Your task to perform on an android device: Open the Play Movies app and select the watchlist tab. Image 0: 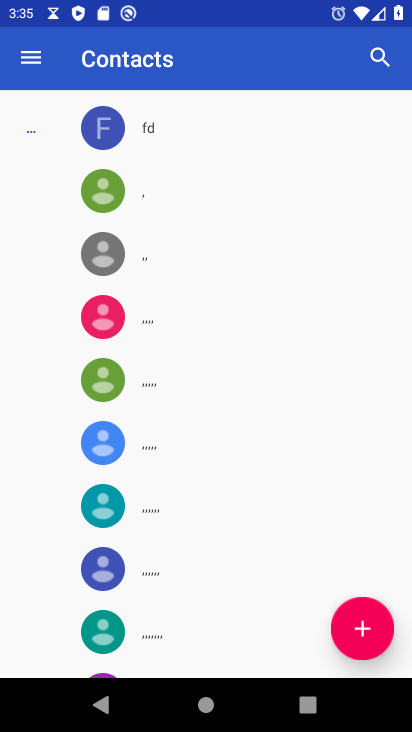
Step 0: press back button
Your task to perform on an android device: Open the Play Movies app and select the watchlist tab. Image 1: 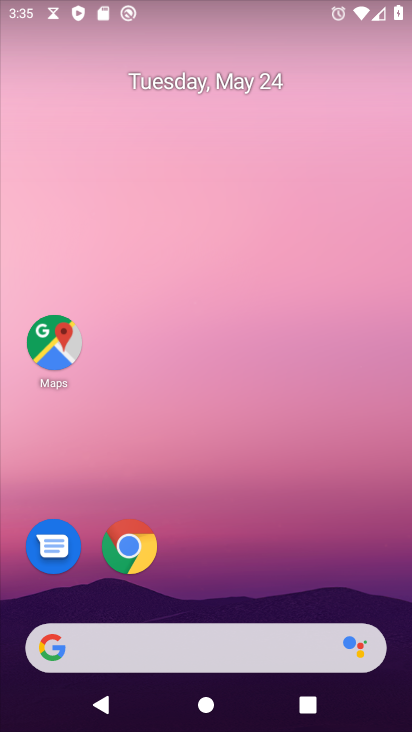
Step 1: drag from (262, 645) to (310, 59)
Your task to perform on an android device: Open the Play Movies app and select the watchlist tab. Image 2: 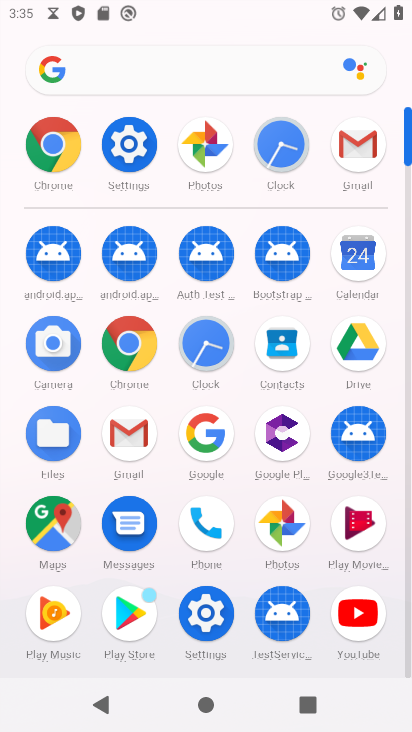
Step 2: click (365, 533)
Your task to perform on an android device: Open the Play Movies app and select the watchlist tab. Image 3: 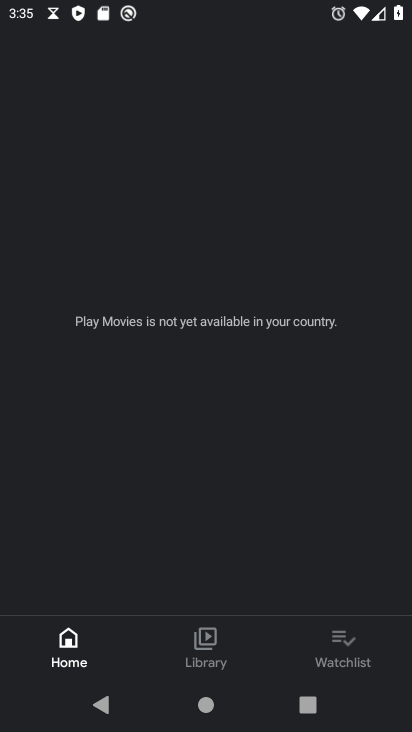
Step 3: click (327, 639)
Your task to perform on an android device: Open the Play Movies app and select the watchlist tab. Image 4: 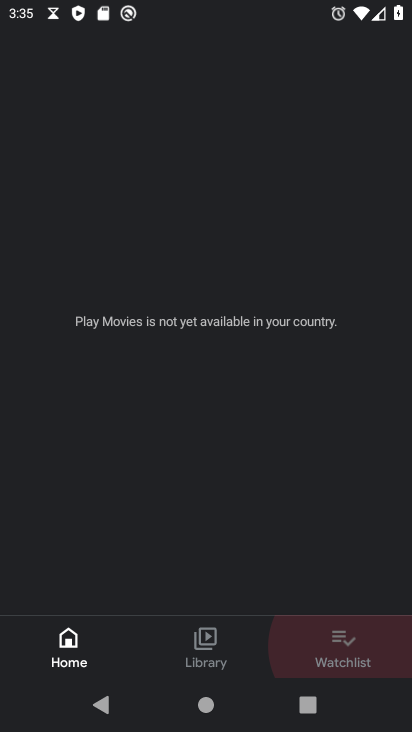
Step 4: click (328, 636)
Your task to perform on an android device: Open the Play Movies app and select the watchlist tab. Image 5: 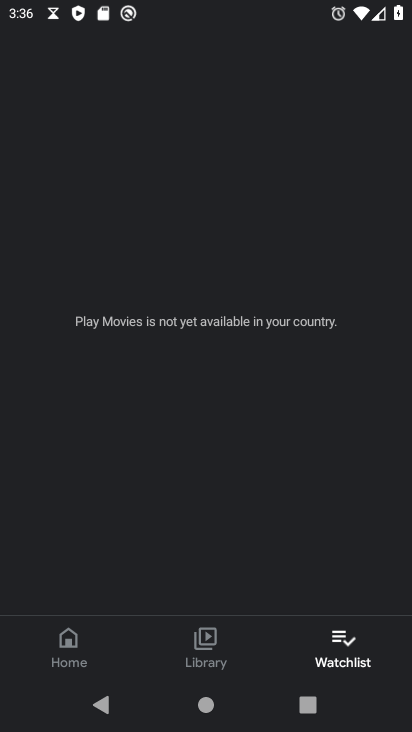
Step 5: click (329, 635)
Your task to perform on an android device: Open the Play Movies app and select the watchlist tab. Image 6: 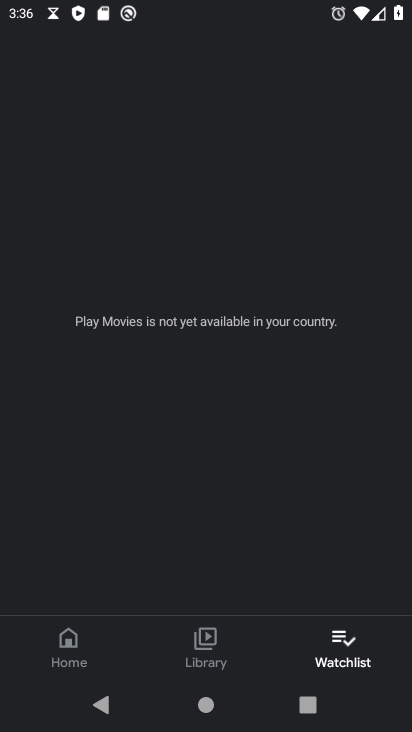
Step 6: click (351, 646)
Your task to perform on an android device: Open the Play Movies app and select the watchlist tab. Image 7: 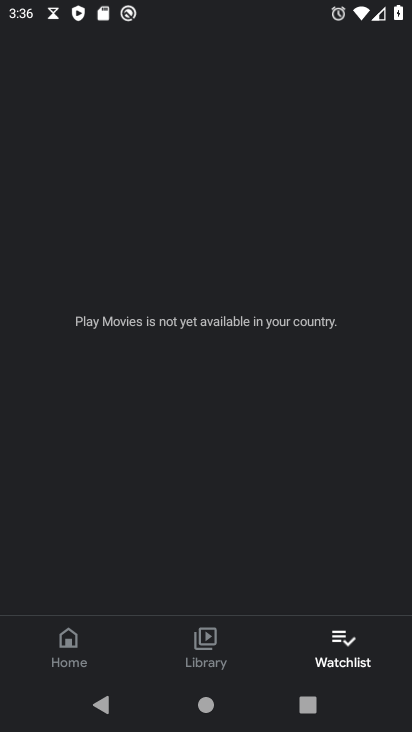
Step 7: click (351, 646)
Your task to perform on an android device: Open the Play Movies app and select the watchlist tab. Image 8: 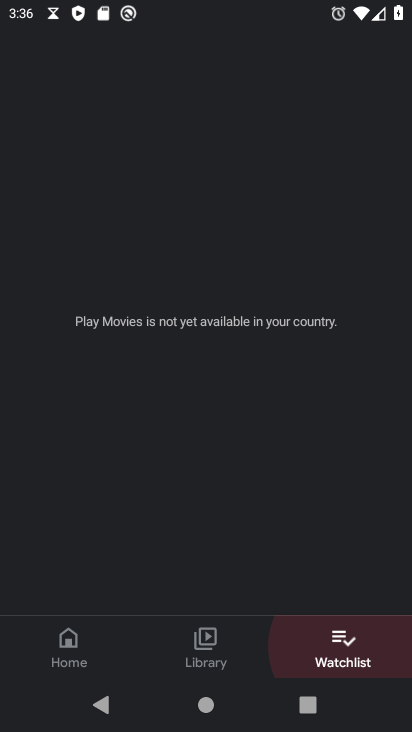
Step 8: click (351, 646)
Your task to perform on an android device: Open the Play Movies app and select the watchlist tab. Image 9: 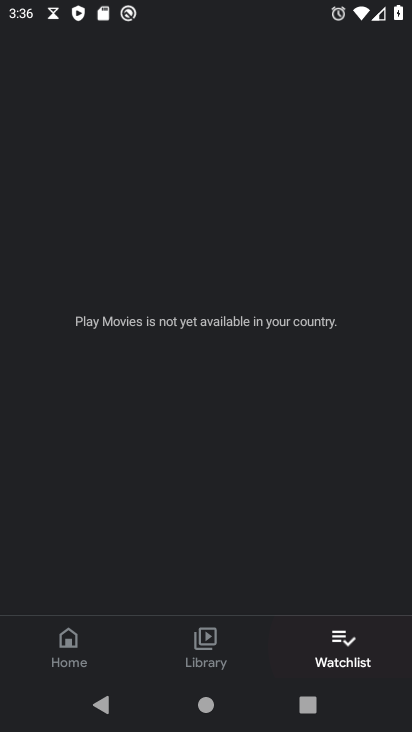
Step 9: click (352, 646)
Your task to perform on an android device: Open the Play Movies app and select the watchlist tab. Image 10: 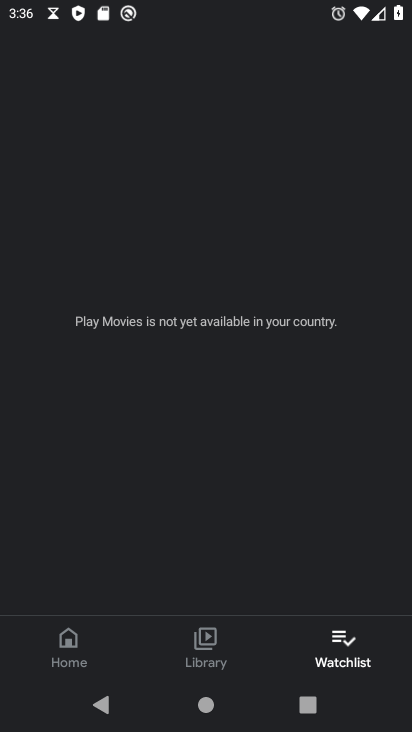
Step 10: click (353, 654)
Your task to perform on an android device: Open the Play Movies app and select the watchlist tab. Image 11: 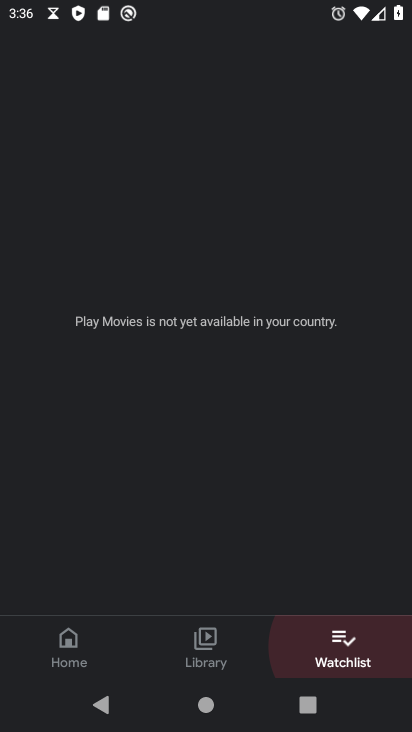
Step 11: click (348, 654)
Your task to perform on an android device: Open the Play Movies app and select the watchlist tab. Image 12: 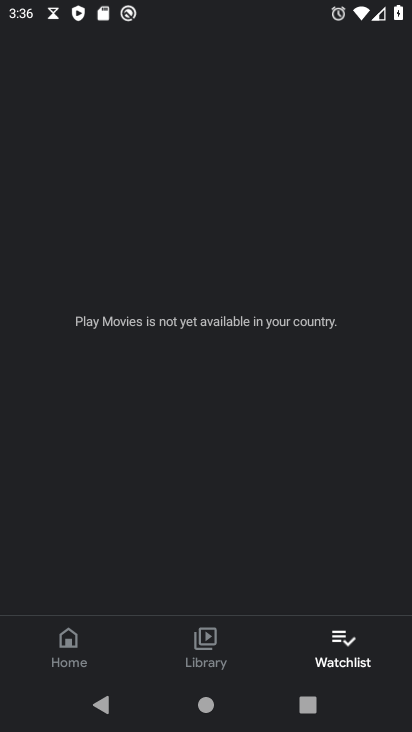
Step 12: click (343, 654)
Your task to perform on an android device: Open the Play Movies app and select the watchlist tab. Image 13: 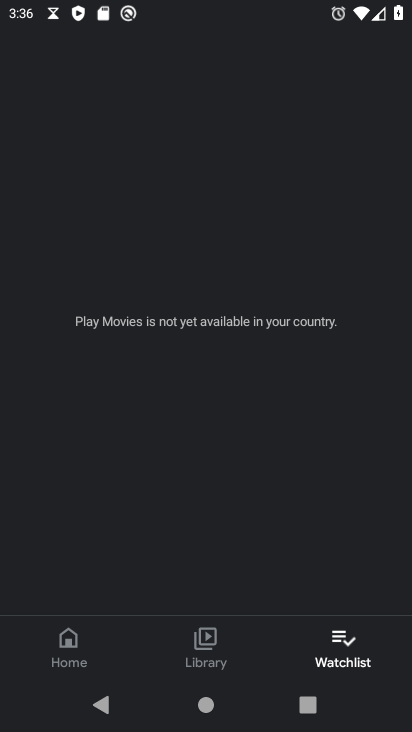
Step 13: click (340, 652)
Your task to perform on an android device: Open the Play Movies app and select the watchlist tab. Image 14: 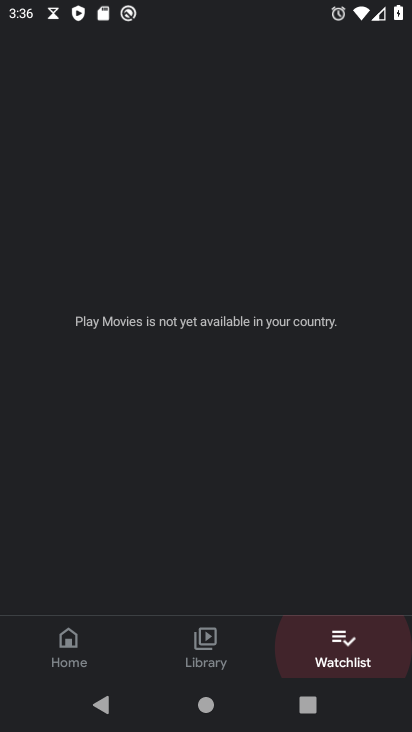
Step 14: click (335, 649)
Your task to perform on an android device: Open the Play Movies app and select the watchlist tab. Image 15: 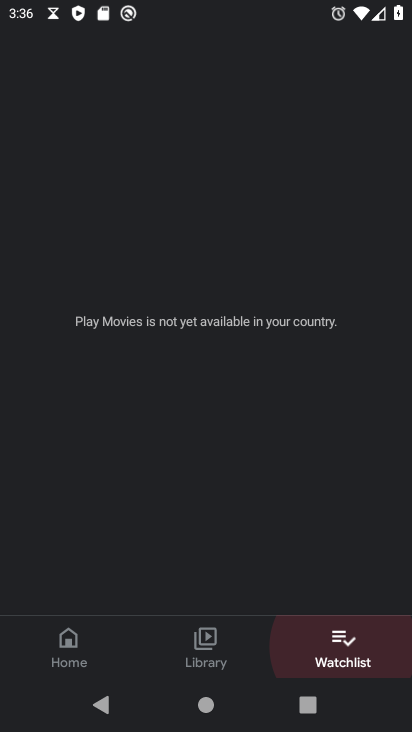
Step 15: click (336, 645)
Your task to perform on an android device: Open the Play Movies app and select the watchlist tab. Image 16: 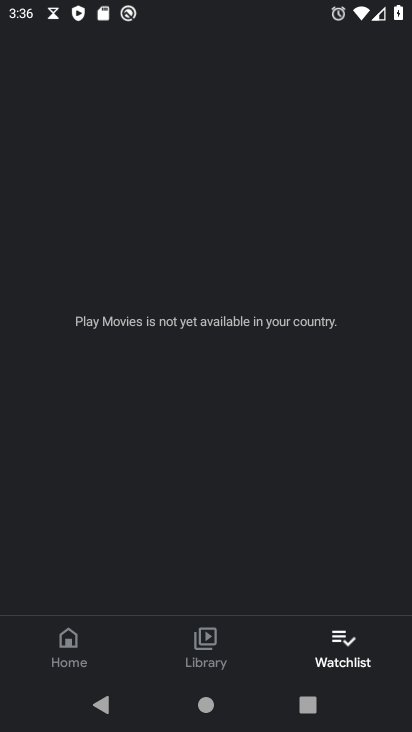
Step 16: click (347, 657)
Your task to perform on an android device: Open the Play Movies app and select the watchlist tab. Image 17: 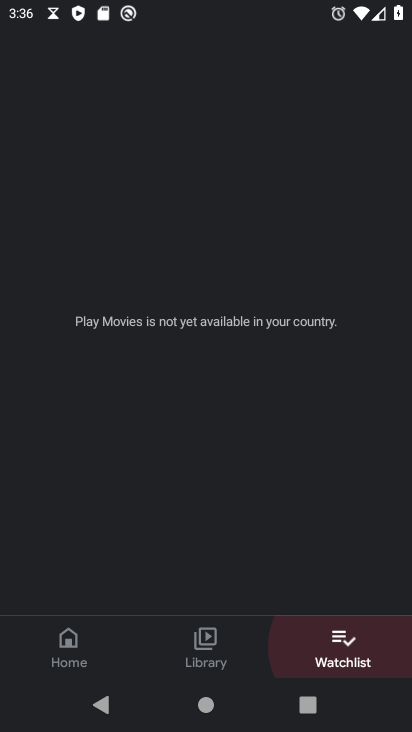
Step 17: click (338, 645)
Your task to perform on an android device: Open the Play Movies app and select the watchlist tab. Image 18: 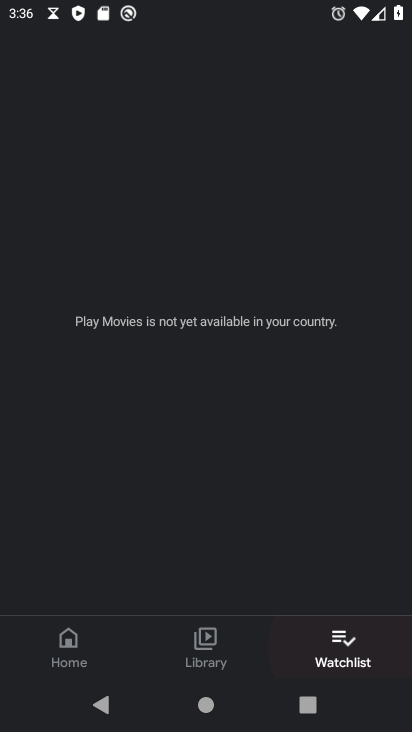
Step 18: click (338, 645)
Your task to perform on an android device: Open the Play Movies app and select the watchlist tab. Image 19: 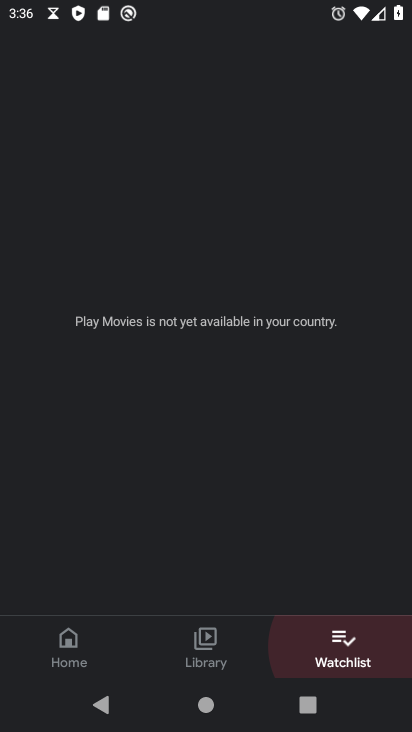
Step 19: click (345, 650)
Your task to perform on an android device: Open the Play Movies app and select the watchlist tab. Image 20: 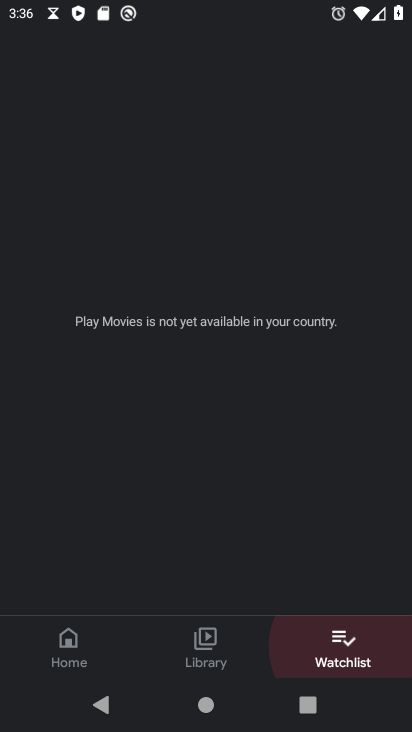
Step 20: click (349, 654)
Your task to perform on an android device: Open the Play Movies app and select the watchlist tab. Image 21: 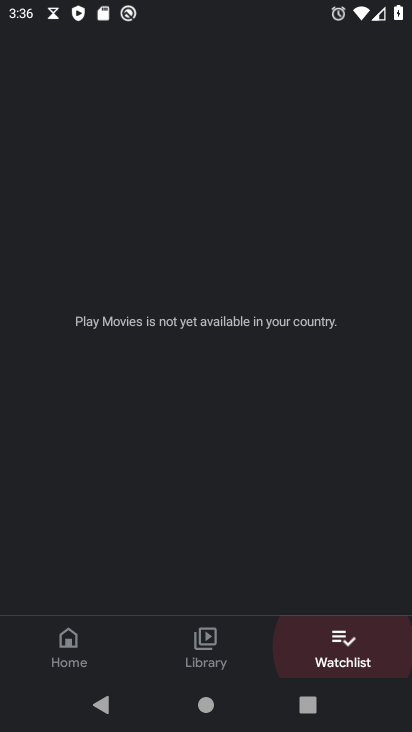
Step 21: click (348, 654)
Your task to perform on an android device: Open the Play Movies app and select the watchlist tab. Image 22: 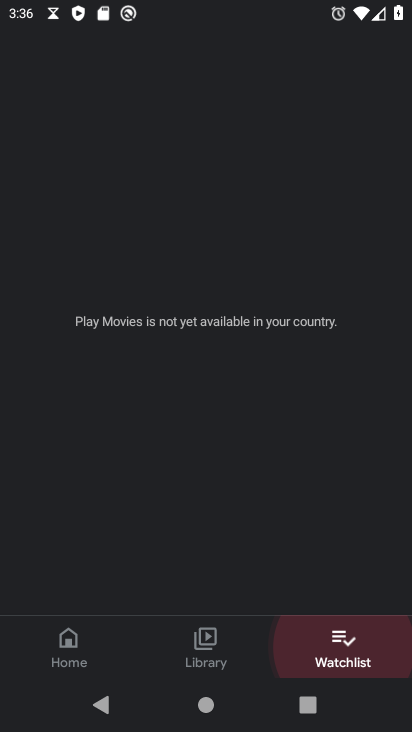
Step 22: click (337, 653)
Your task to perform on an android device: Open the Play Movies app and select the watchlist tab. Image 23: 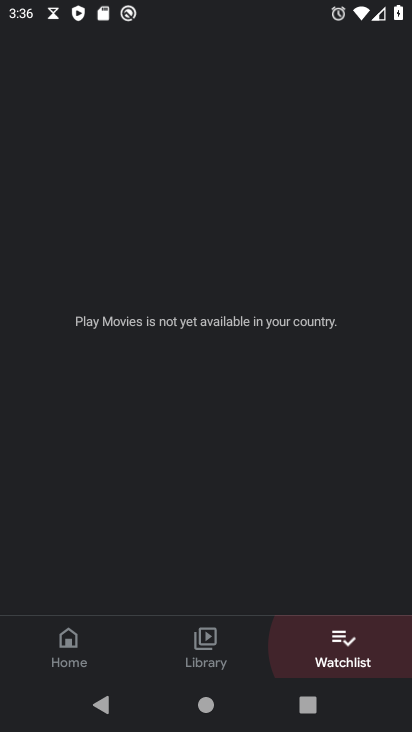
Step 23: click (314, 658)
Your task to perform on an android device: Open the Play Movies app and select the watchlist tab. Image 24: 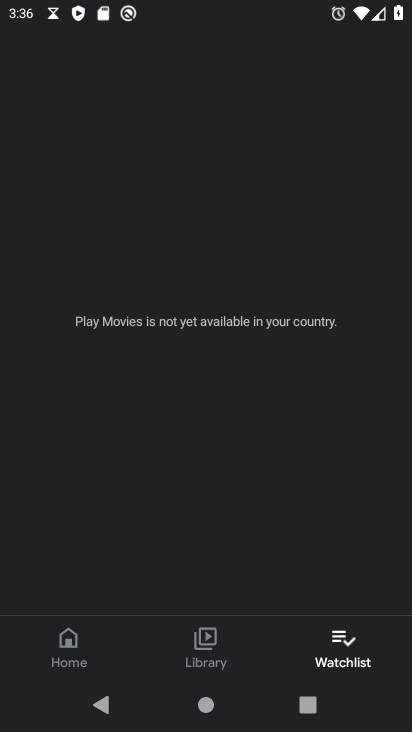
Step 24: task complete